Your task to perform on an android device: open a bookmark in the chrome app Image 0: 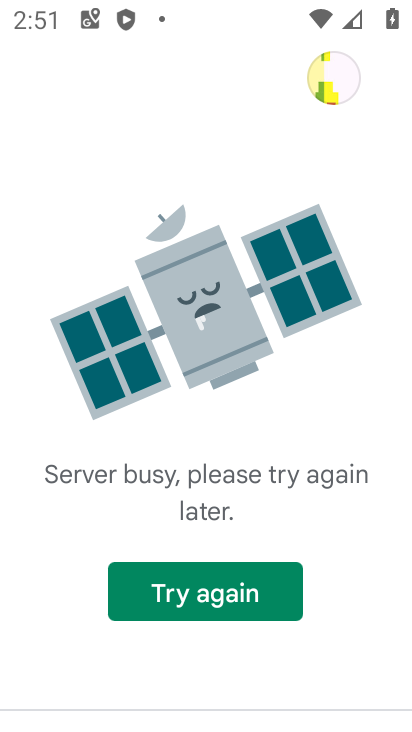
Step 0: press home button
Your task to perform on an android device: open a bookmark in the chrome app Image 1: 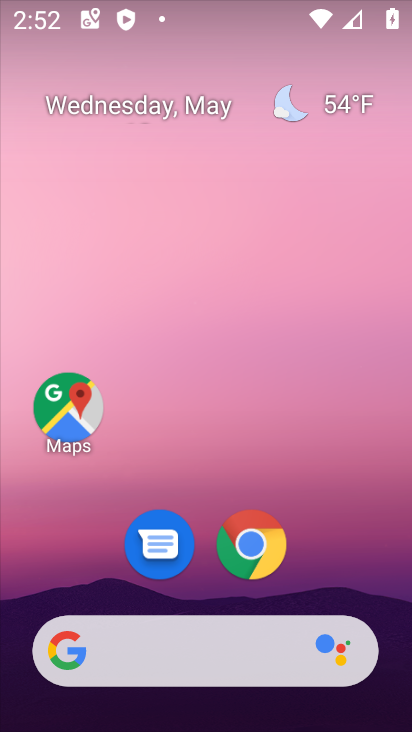
Step 1: click (242, 547)
Your task to perform on an android device: open a bookmark in the chrome app Image 2: 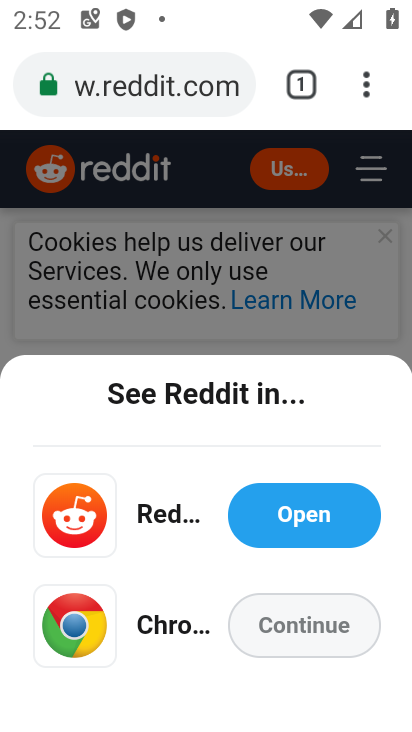
Step 2: click (352, 101)
Your task to perform on an android device: open a bookmark in the chrome app Image 3: 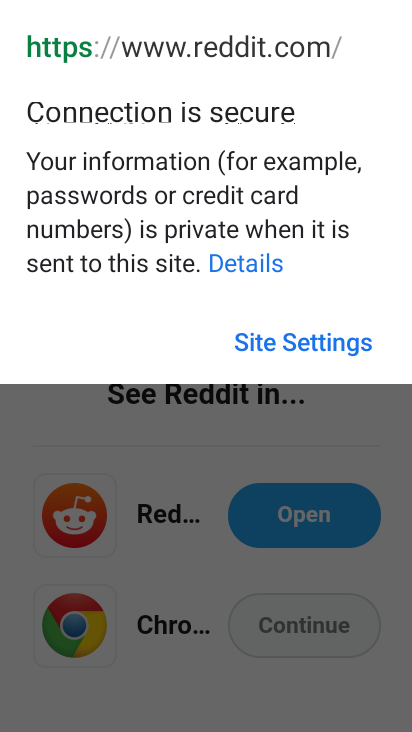
Step 3: click (248, 346)
Your task to perform on an android device: open a bookmark in the chrome app Image 4: 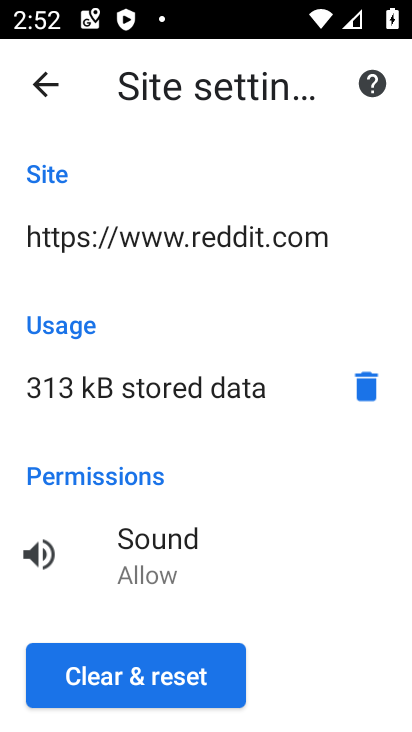
Step 4: click (200, 653)
Your task to perform on an android device: open a bookmark in the chrome app Image 5: 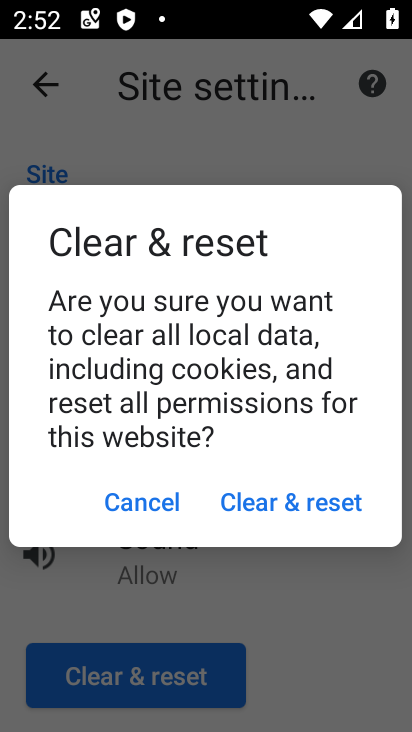
Step 5: task complete